Your task to perform on an android device: check battery use Image 0: 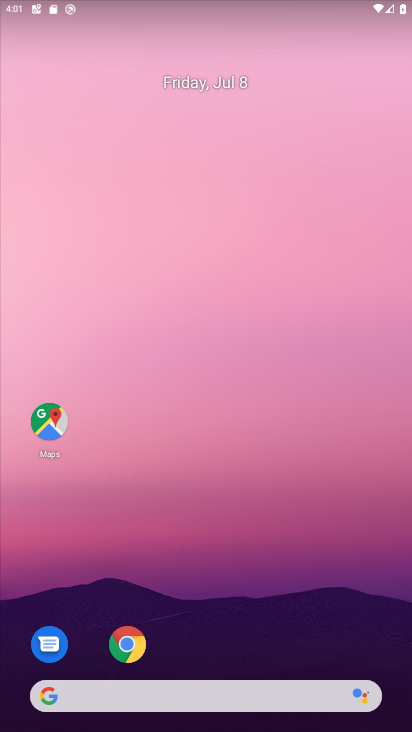
Step 0: drag from (377, 642) to (329, 276)
Your task to perform on an android device: check battery use Image 1: 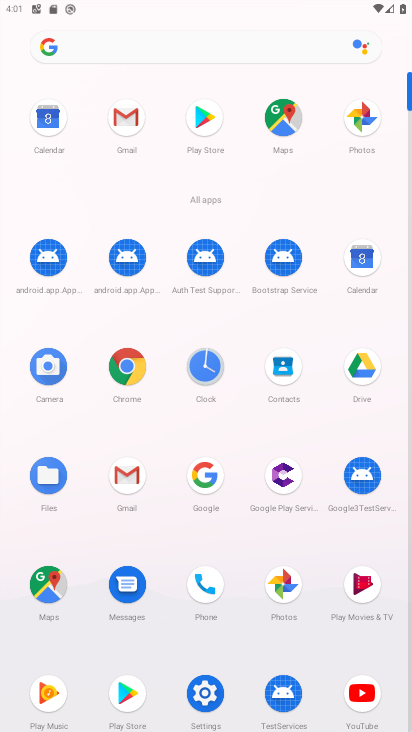
Step 1: click (204, 692)
Your task to perform on an android device: check battery use Image 2: 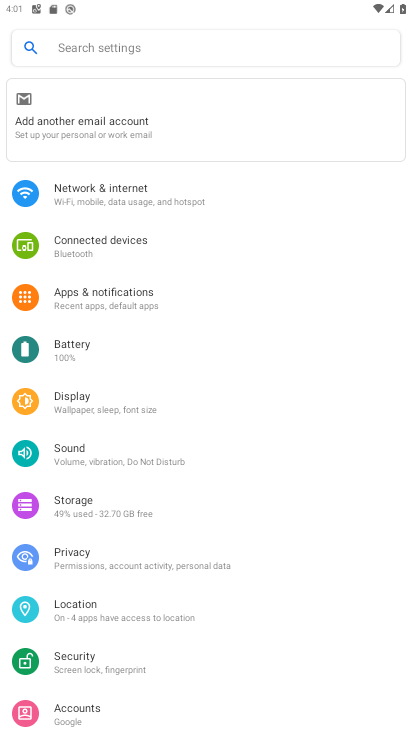
Step 2: click (76, 351)
Your task to perform on an android device: check battery use Image 3: 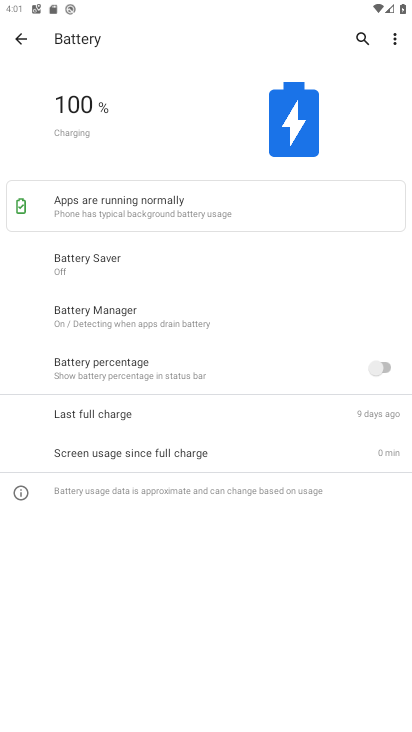
Step 3: click (391, 40)
Your task to perform on an android device: check battery use Image 4: 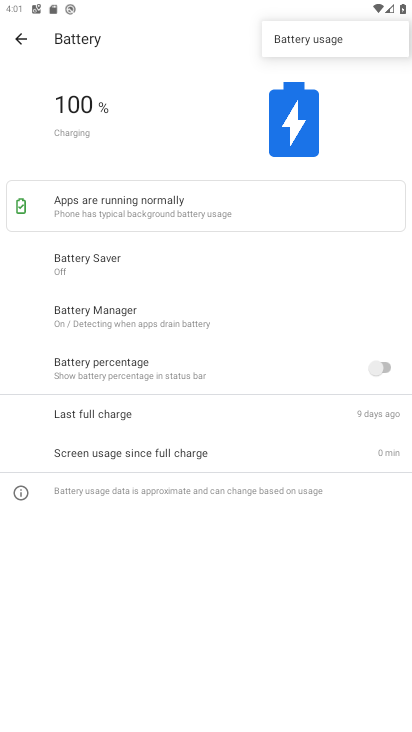
Step 4: click (300, 43)
Your task to perform on an android device: check battery use Image 5: 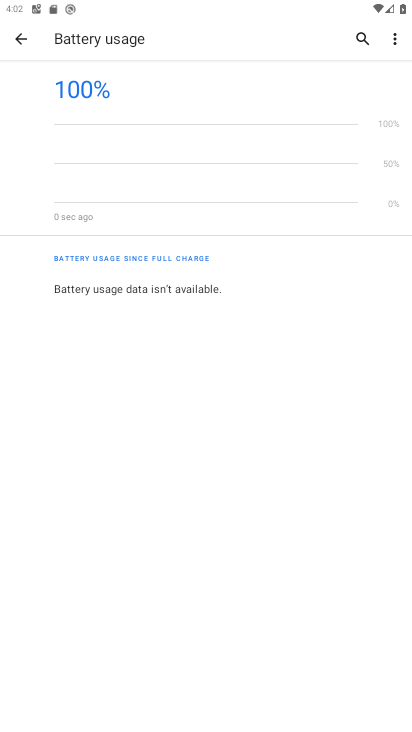
Step 5: task complete